Your task to perform on an android device: Search for Italian restaurants on Maps Image 0: 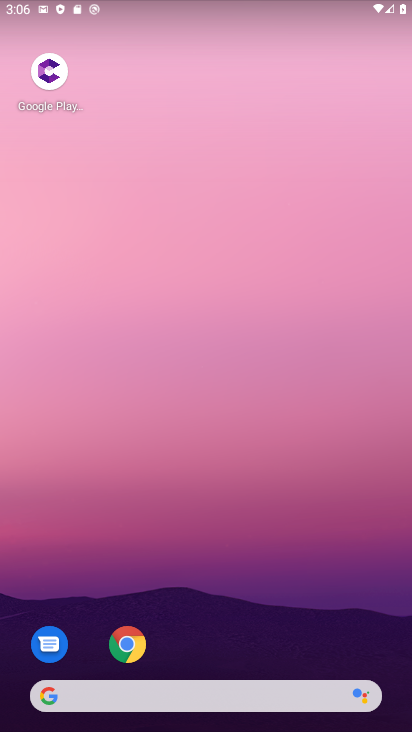
Step 0: drag from (44, 583) to (305, 43)
Your task to perform on an android device: Search for Italian restaurants on Maps Image 1: 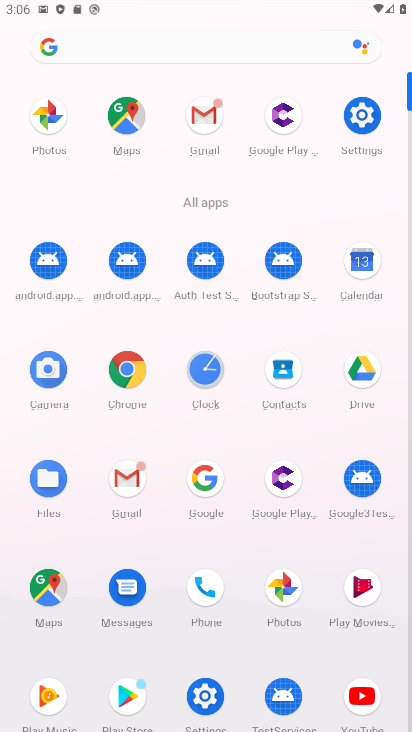
Step 1: click (62, 592)
Your task to perform on an android device: Search for Italian restaurants on Maps Image 2: 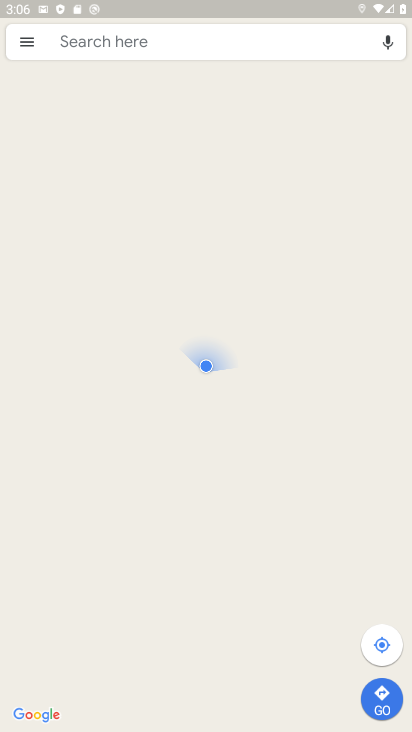
Step 2: click (89, 41)
Your task to perform on an android device: Search for Italian restaurants on Maps Image 3: 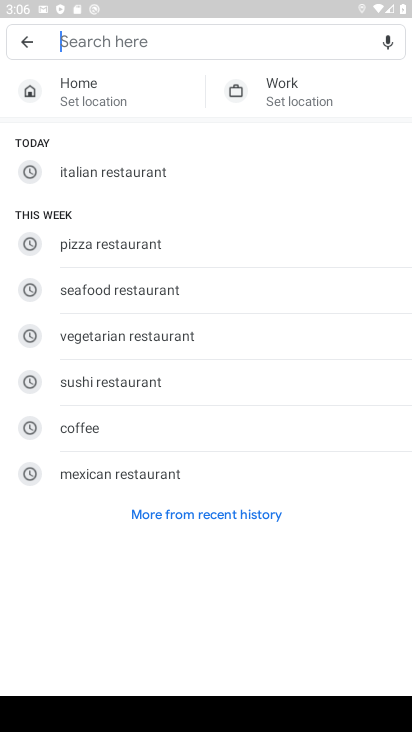
Step 3: click (119, 174)
Your task to perform on an android device: Search for Italian restaurants on Maps Image 4: 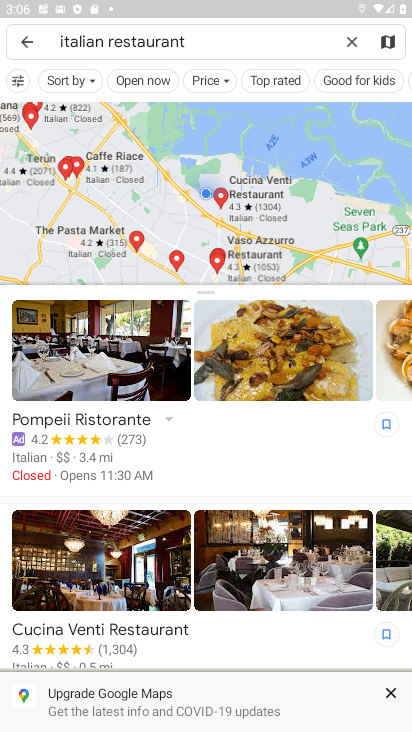
Step 4: task complete